Your task to perform on an android device: make emails show in primary in the gmail app Image 0: 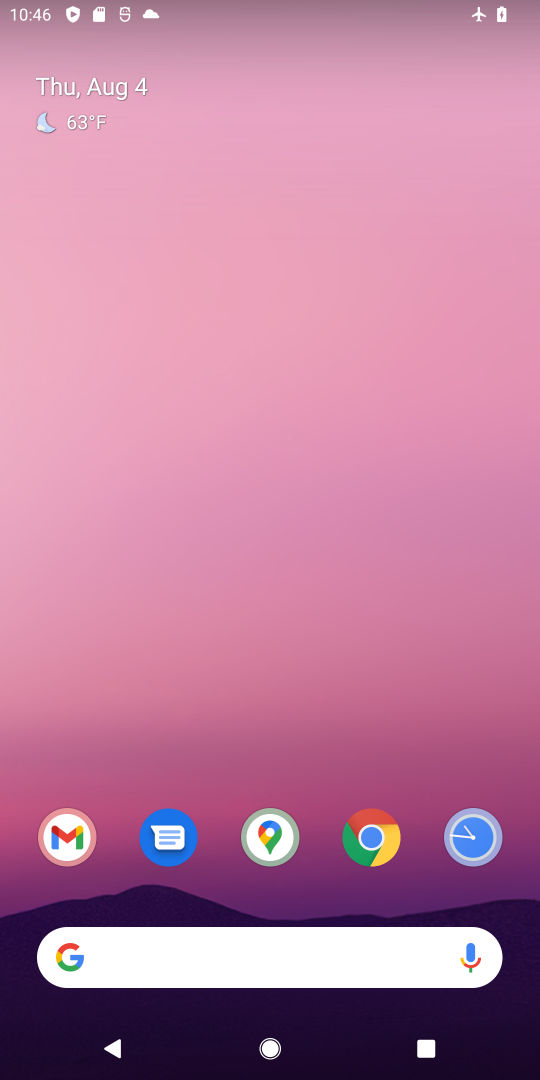
Step 0: drag from (283, 829) to (315, 119)
Your task to perform on an android device: make emails show in primary in the gmail app Image 1: 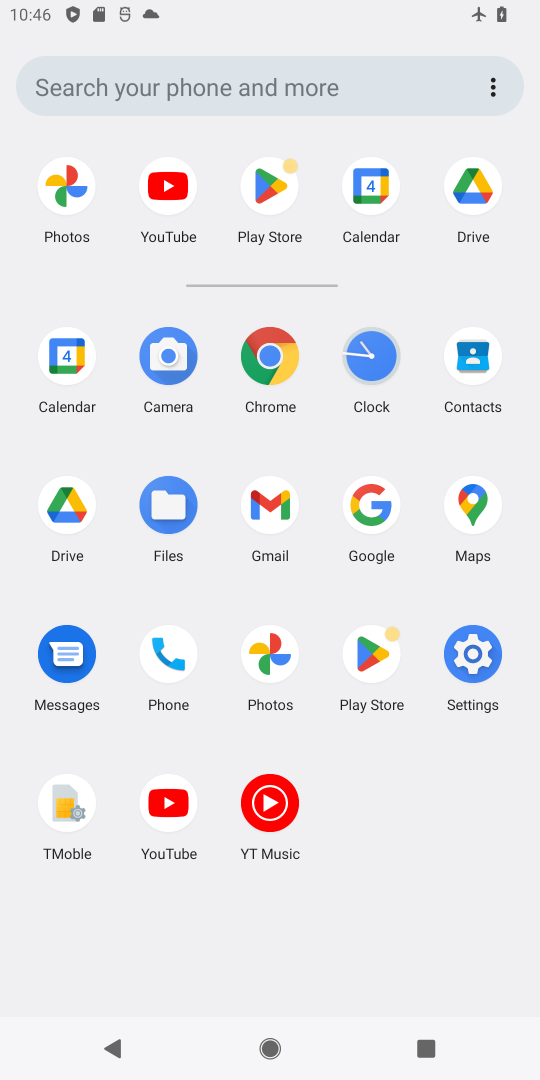
Step 1: click (282, 500)
Your task to perform on an android device: make emails show in primary in the gmail app Image 2: 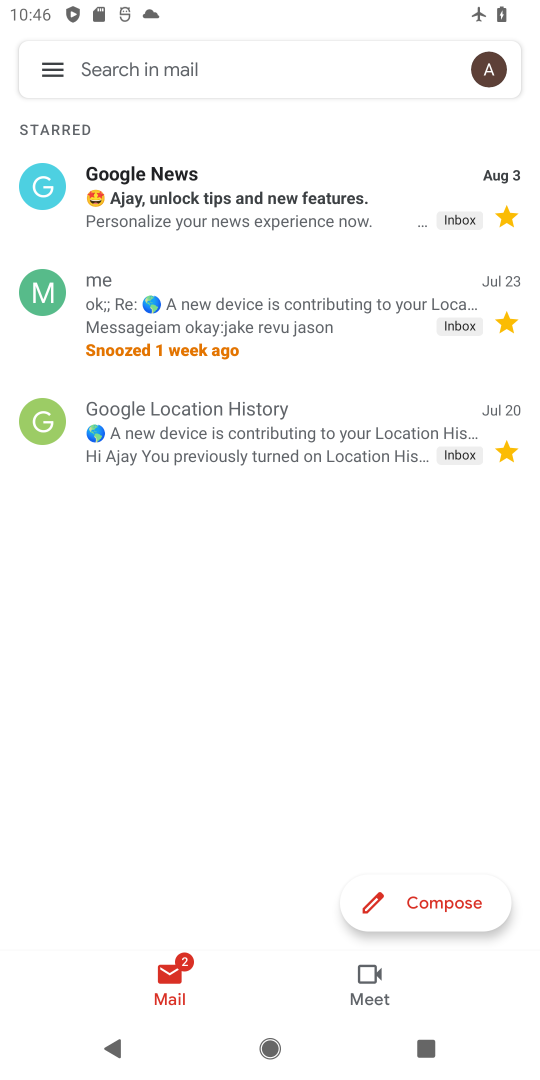
Step 2: click (33, 71)
Your task to perform on an android device: make emails show in primary in the gmail app Image 3: 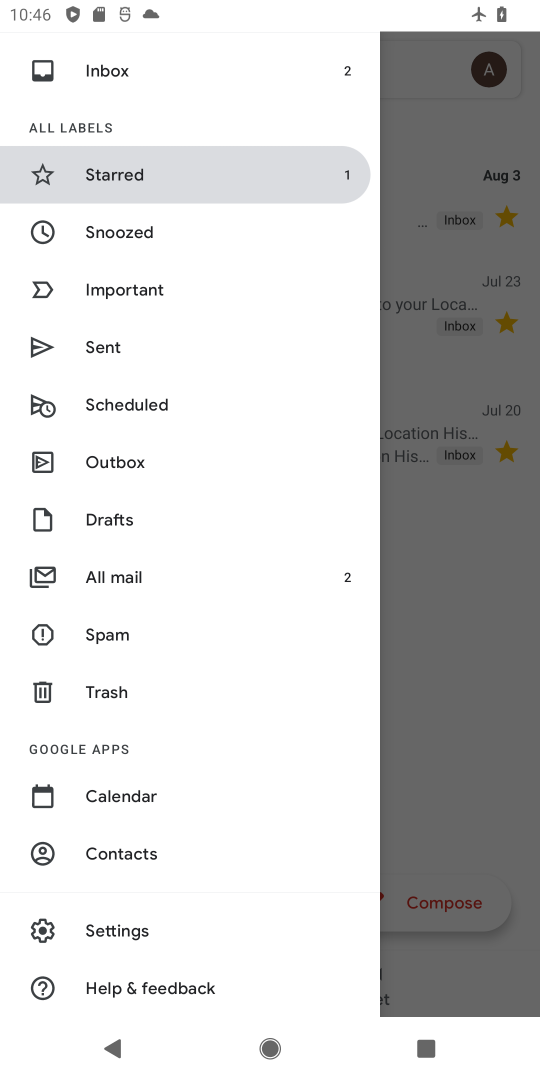
Step 3: click (134, 913)
Your task to perform on an android device: make emails show in primary in the gmail app Image 4: 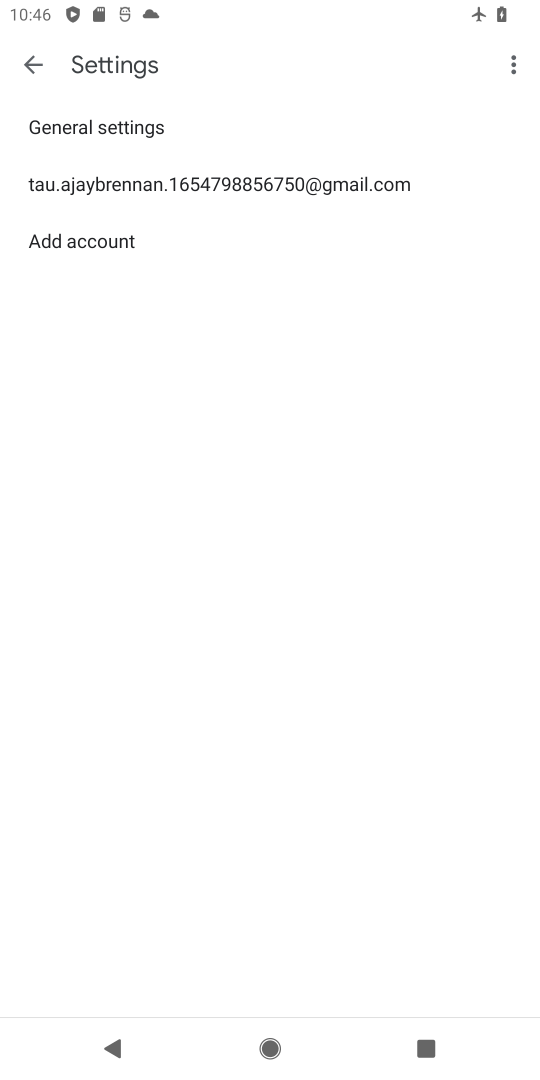
Step 4: click (99, 182)
Your task to perform on an android device: make emails show in primary in the gmail app Image 5: 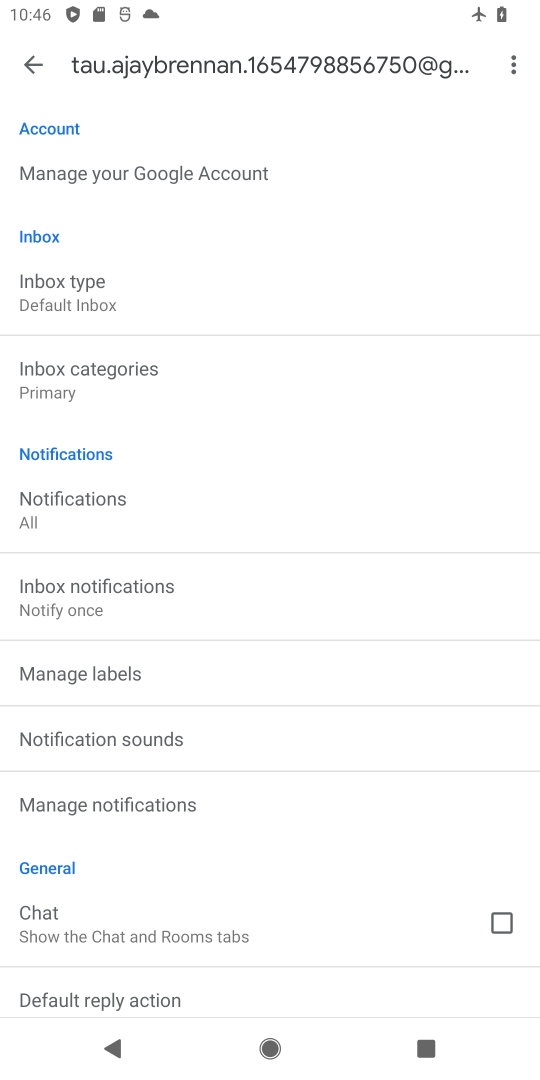
Step 5: task complete